Your task to perform on an android device: Open the phone app and click the voicemail tab. Image 0: 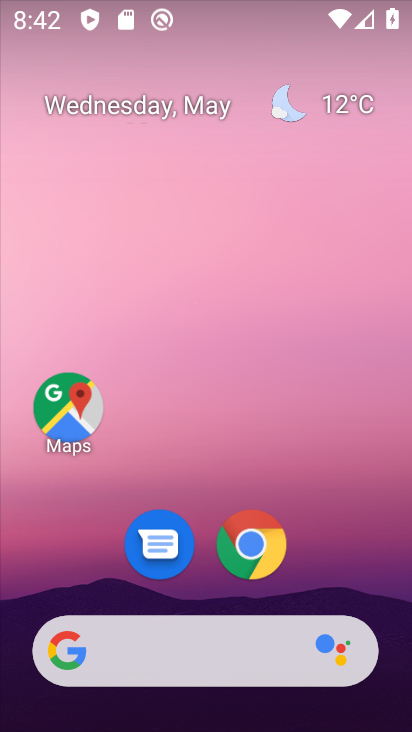
Step 0: drag from (194, 590) to (197, 198)
Your task to perform on an android device: Open the phone app and click the voicemail tab. Image 1: 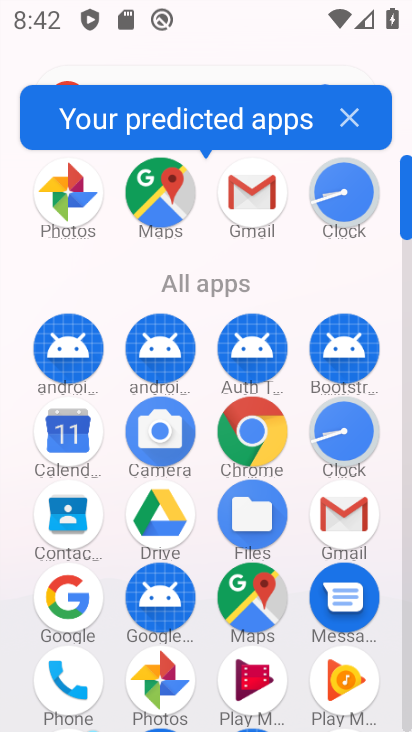
Step 1: click (76, 692)
Your task to perform on an android device: Open the phone app and click the voicemail tab. Image 2: 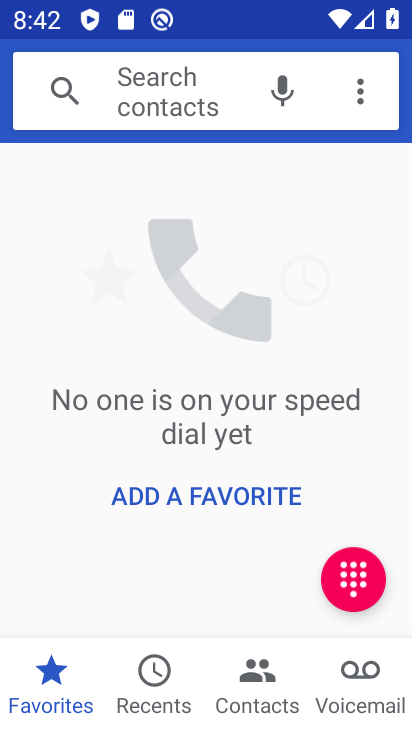
Step 2: click (364, 685)
Your task to perform on an android device: Open the phone app and click the voicemail tab. Image 3: 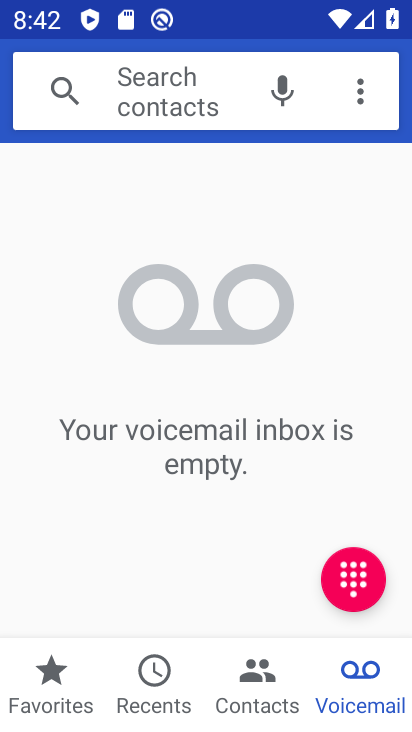
Step 3: task complete